Your task to perform on an android device: Go to Amazon Image 0: 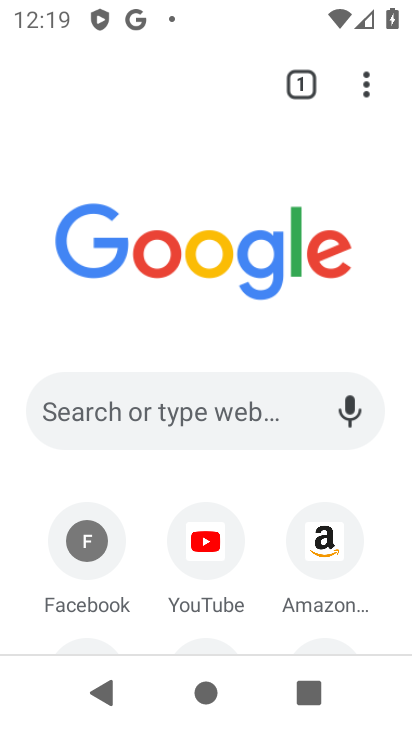
Step 0: click (336, 534)
Your task to perform on an android device: Go to Amazon Image 1: 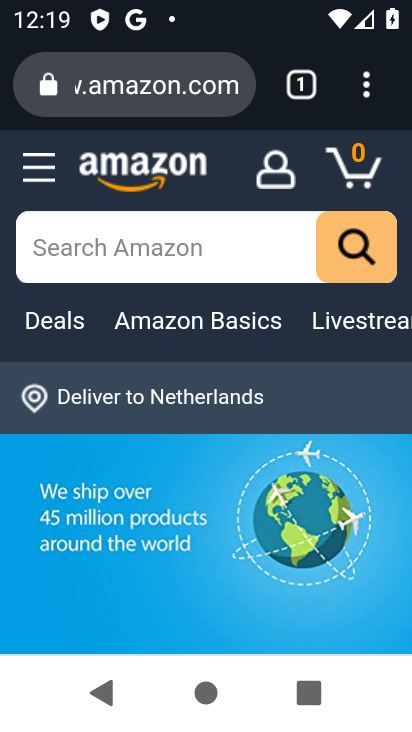
Step 1: task complete